Your task to perform on an android device: set the stopwatch Image 0: 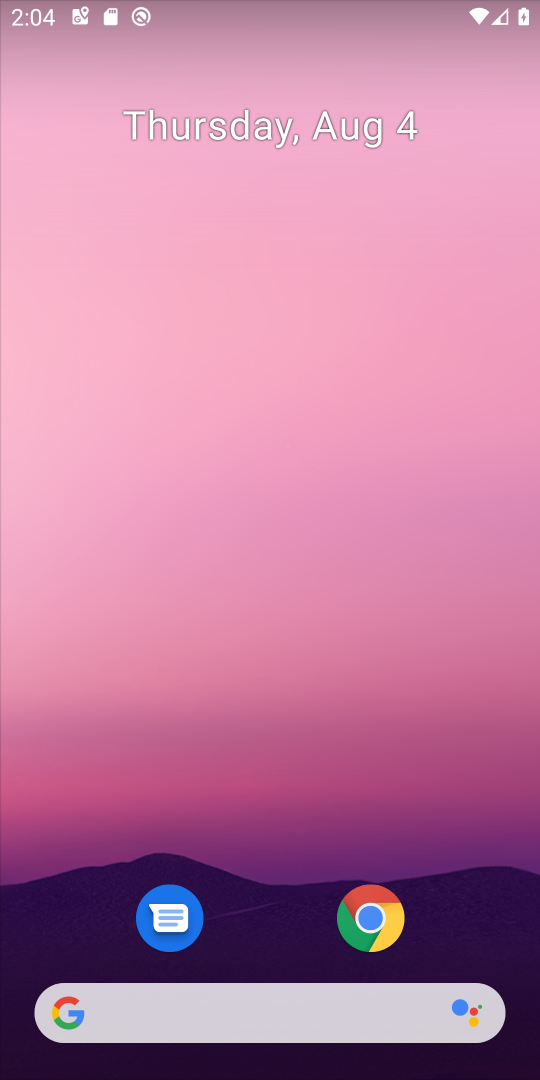
Step 0: drag from (304, 835) to (306, 289)
Your task to perform on an android device: set the stopwatch Image 1: 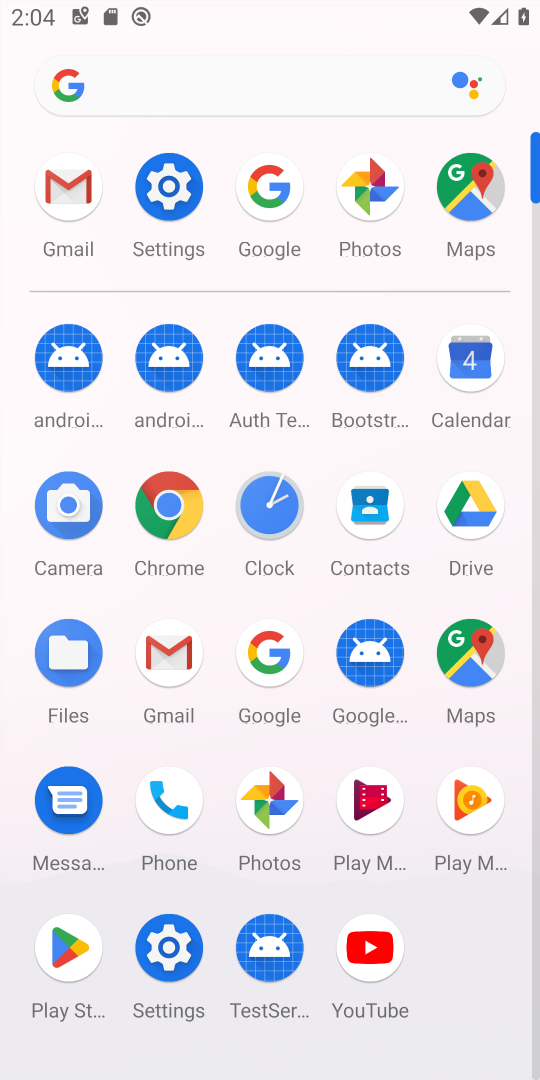
Step 1: click (283, 526)
Your task to perform on an android device: set the stopwatch Image 2: 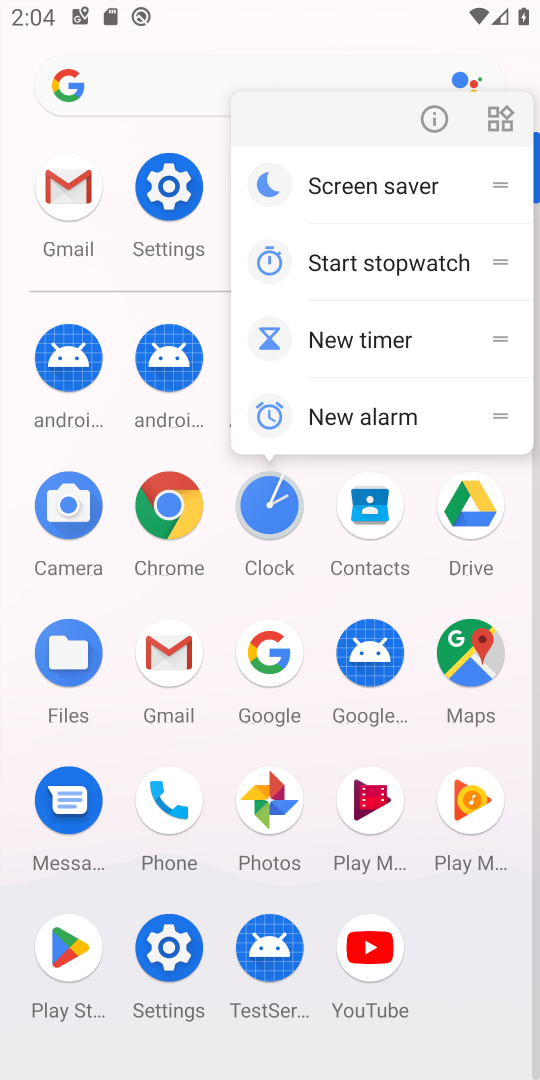
Step 2: click (283, 526)
Your task to perform on an android device: set the stopwatch Image 3: 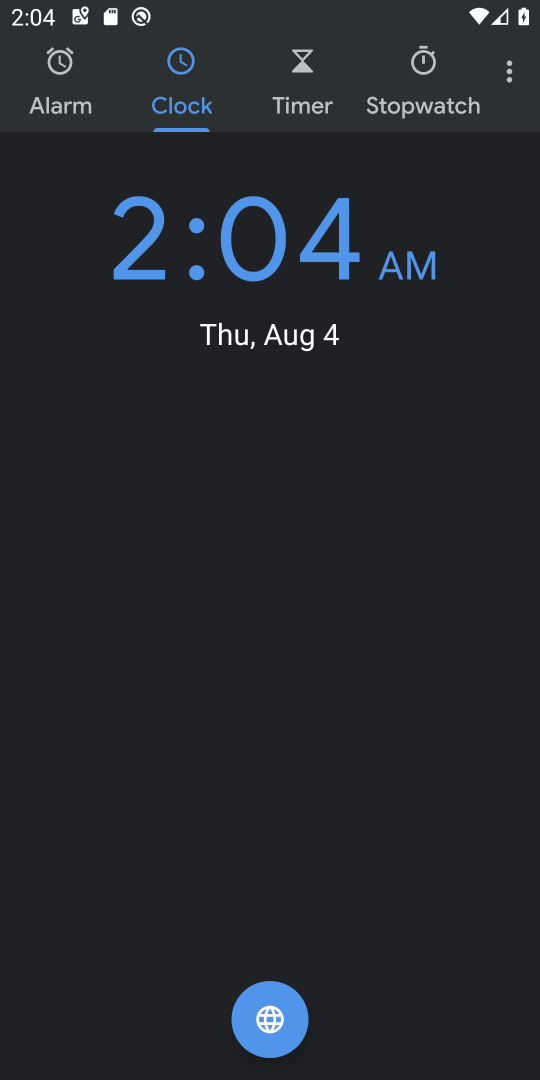
Step 3: click (428, 72)
Your task to perform on an android device: set the stopwatch Image 4: 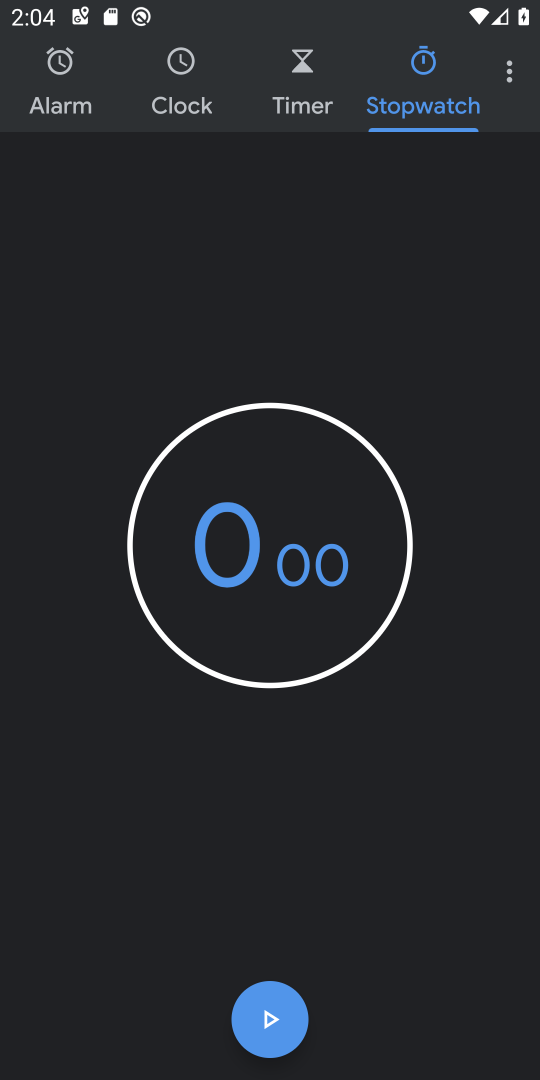
Step 4: click (275, 996)
Your task to perform on an android device: set the stopwatch Image 5: 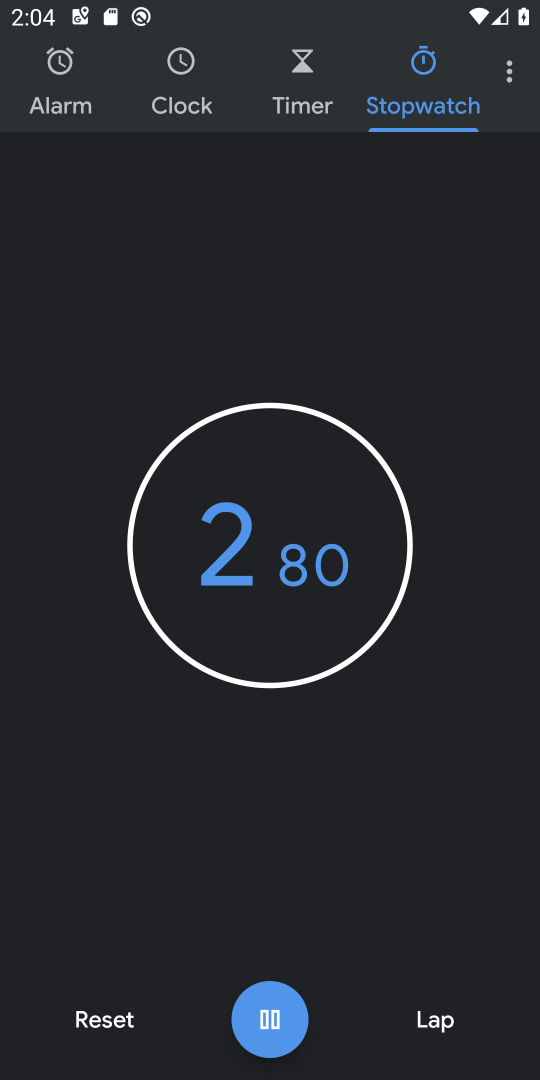
Step 5: task complete